Your task to perform on an android device: What is the news today? Image 0: 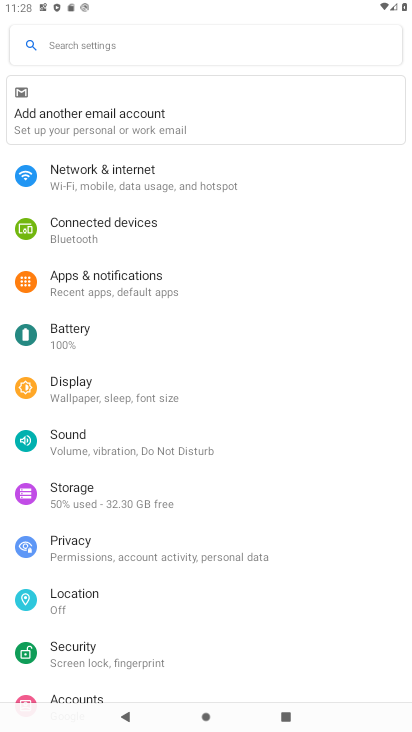
Step 0: press home button
Your task to perform on an android device: What is the news today? Image 1: 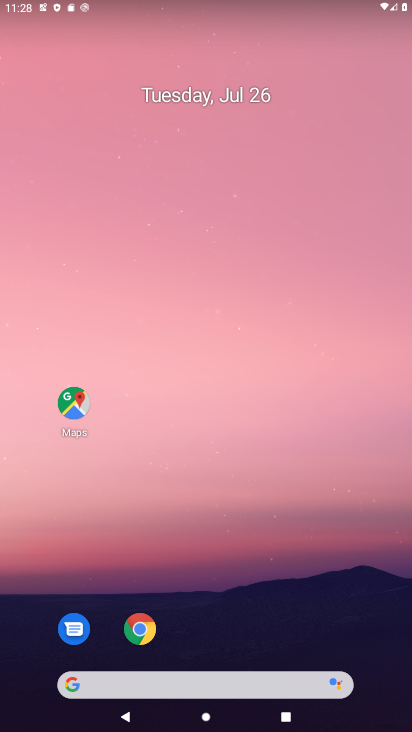
Step 1: click (236, 678)
Your task to perform on an android device: What is the news today? Image 2: 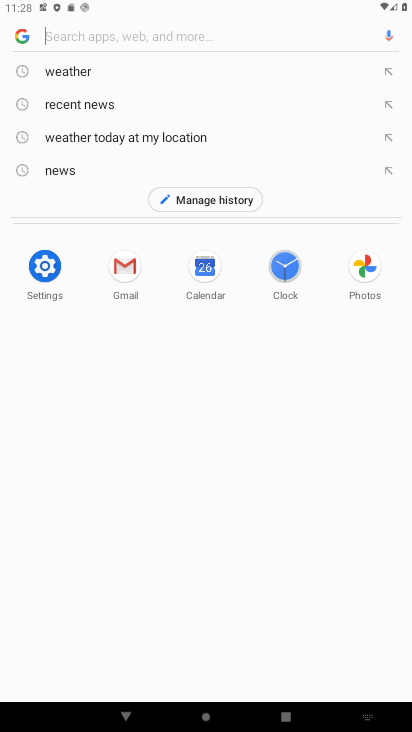
Step 2: click (95, 110)
Your task to perform on an android device: What is the news today? Image 3: 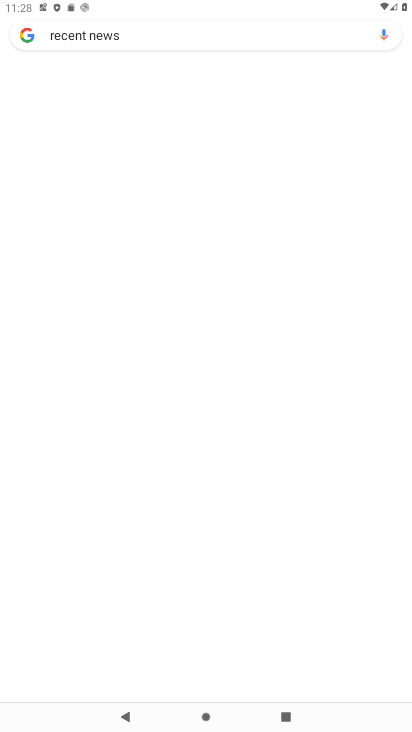
Step 3: task complete